Your task to perform on an android device: Go to Maps Image 0: 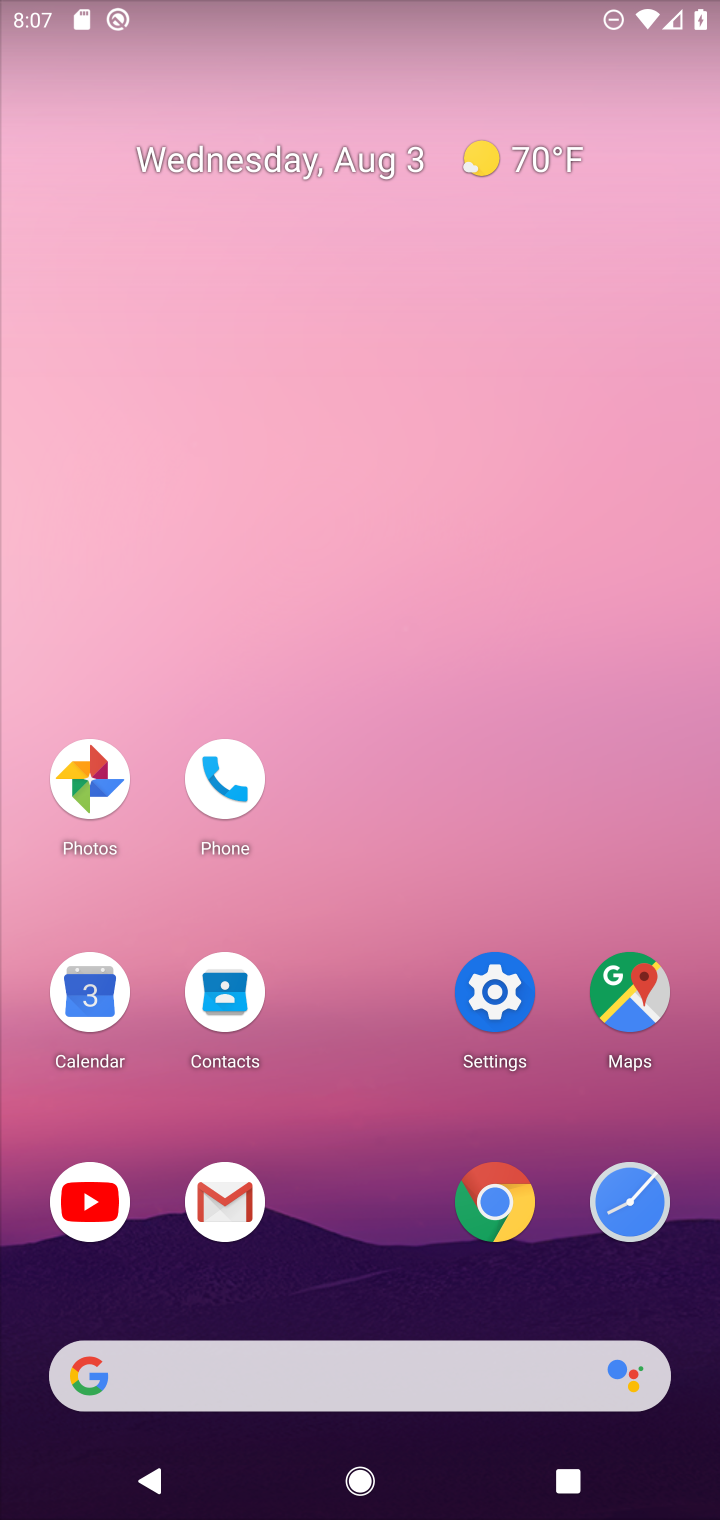
Step 0: click (613, 987)
Your task to perform on an android device: Go to Maps Image 1: 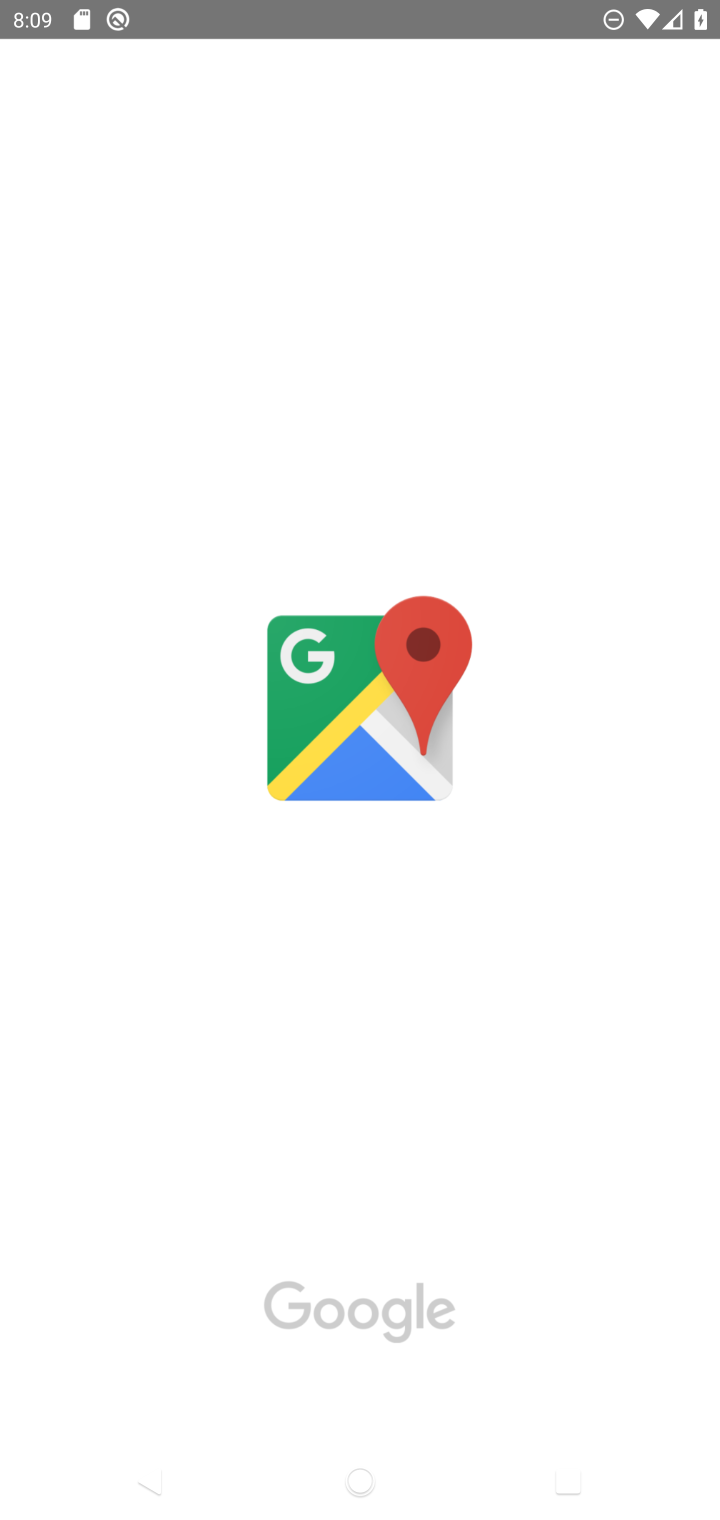
Step 1: task complete